Your task to perform on an android device: Show me popular games on the Play Store Image 0: 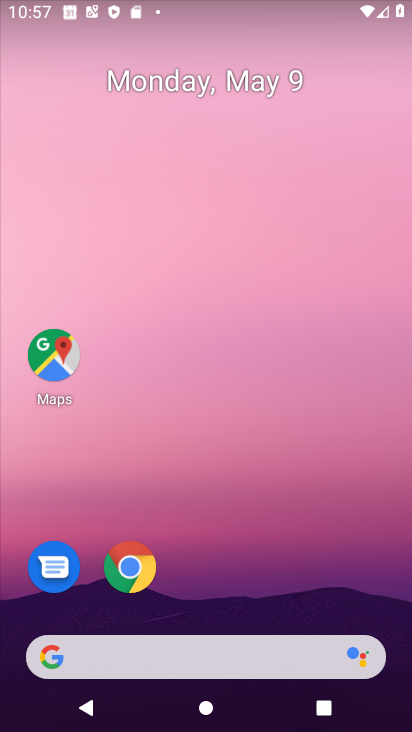
Step 0: drag from (216, 646) to (171, 118)
Your task to perform on an android device: Show me popular games on the Play Store Image 1: 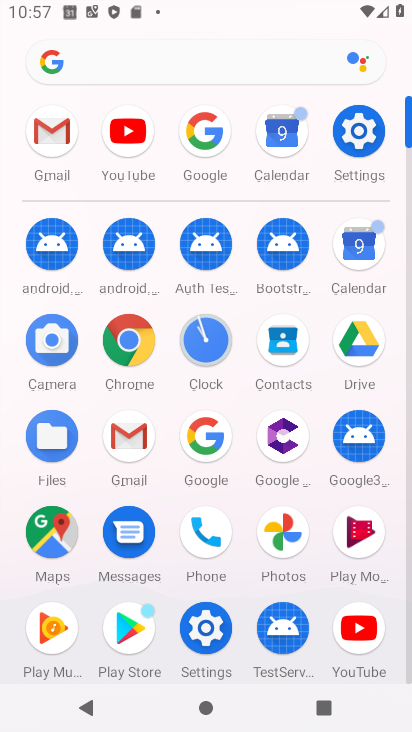
Step 1: click (133, 614)
Your task to perform on an android device: Show me popular games on the Play Store Image 2: 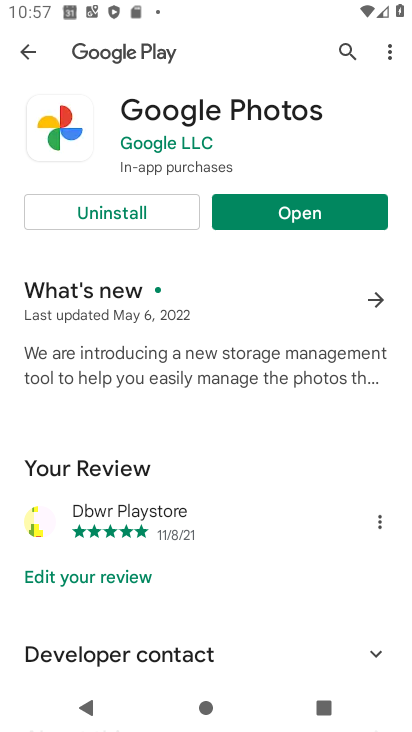
Step 2: click (24, 62)
Your task to perform on an android device: Show me popular games on the Play Store Image 3: 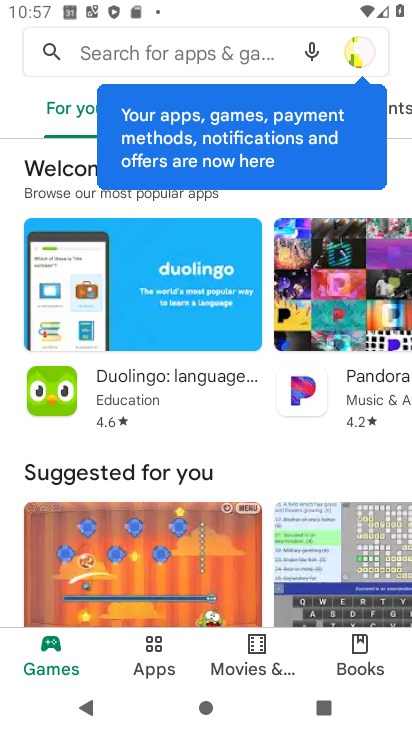
Step 3: drag from (179, 496) to (39, 59)
Your task to perform on an android device: Show me popular games on the Play Store Image 4: 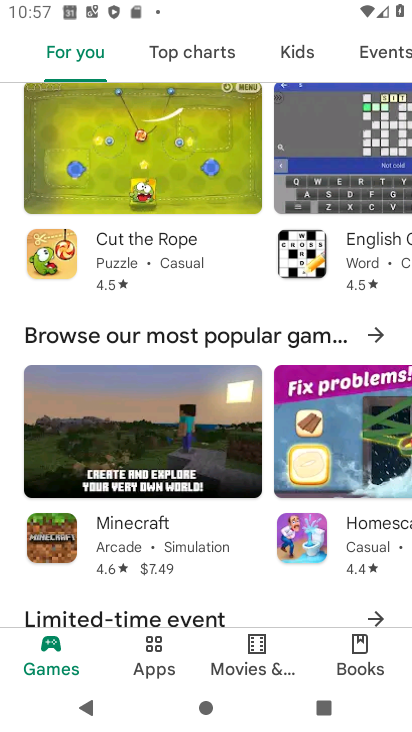
Step 4: click (382, 330)
Your task to perform on an android device: Show me popular games on the Play Store Image 5: 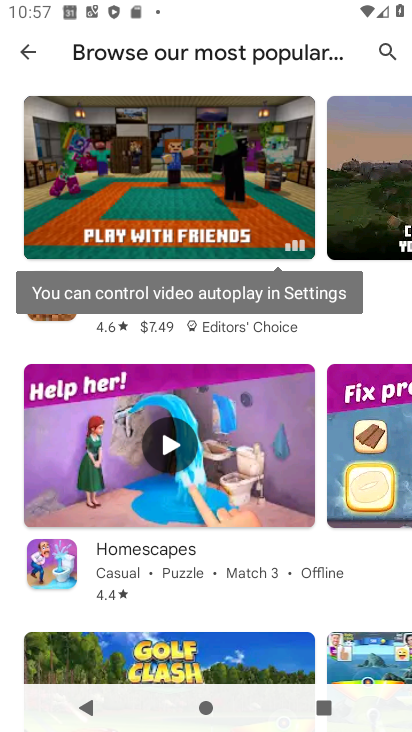
Step 5: task complete